Your task to perform on an android device: read, delete, or share a saved page in the chrome app Image 0: 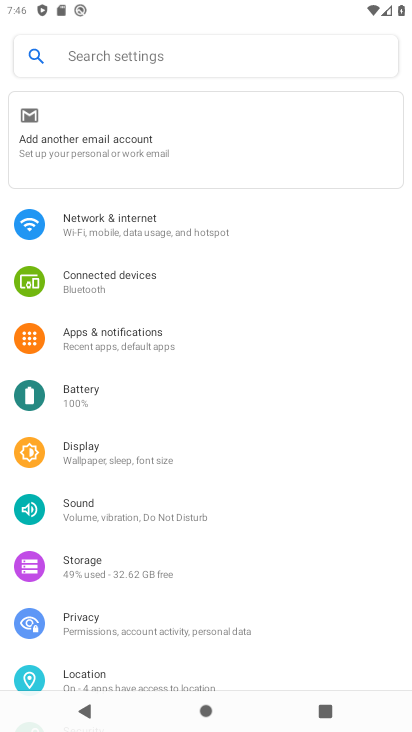
Step 0: press home button
Your task to perform on an android device: read, delete, or share a saved page in the chrome app Image 1: 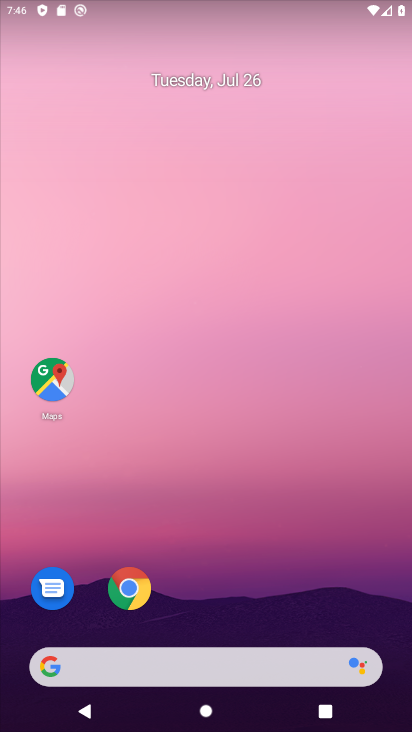
Step 1: drag from (176, 652) to (138, 394)
Your task to perform on an android device: read, delete, or share a saved page in the chrome app Image 2: 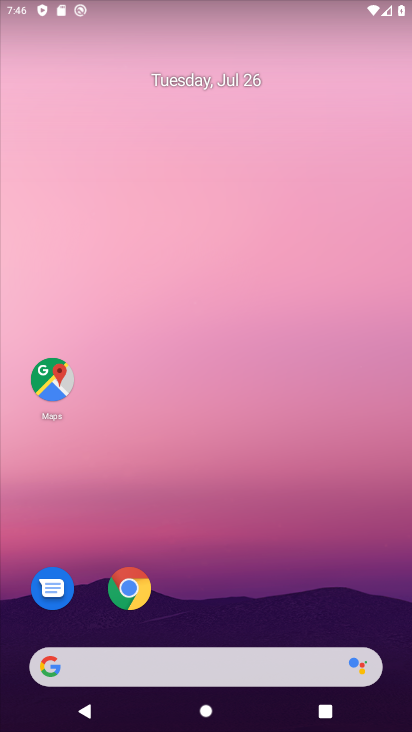
Step 2: drag from (167, 648) to (175, 101)
Your task to perform on an android device: read, delete, or share a saved page in the chrome app Image 3: 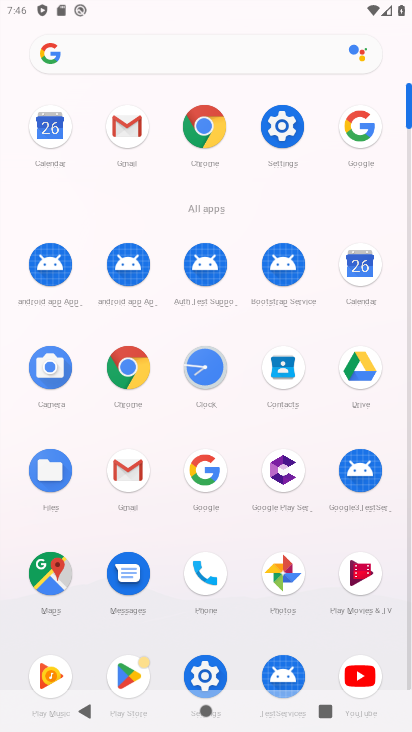
Step 3: click (131, 364)
Your task to perform on an android device: read, delete, or share a saved page in the chrome app Image 4: 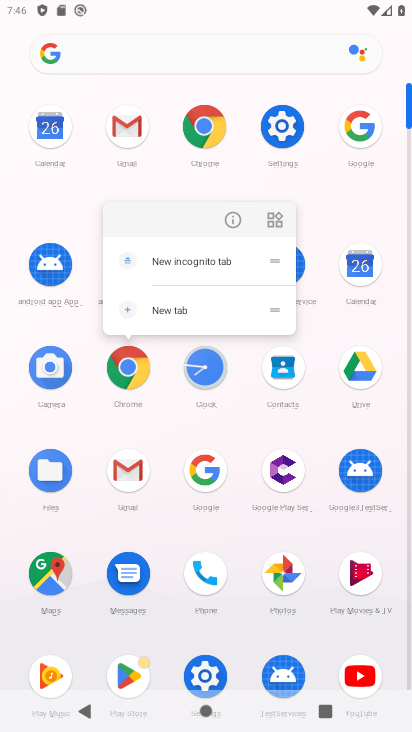
Step 4: click (131, 364)
Your task to perform on an android device: read, delete, or share a saved page in the chrome app Image 5: 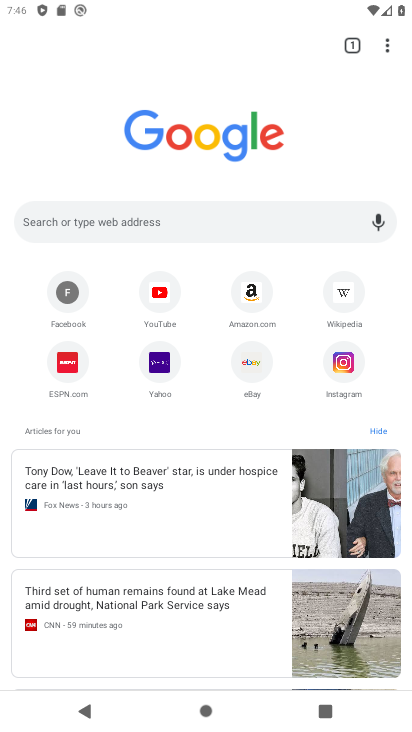
Step 5: click (386, 43)
Your task to perform on an android device: read, delete, or share a saved page in the chrome app Image 6: 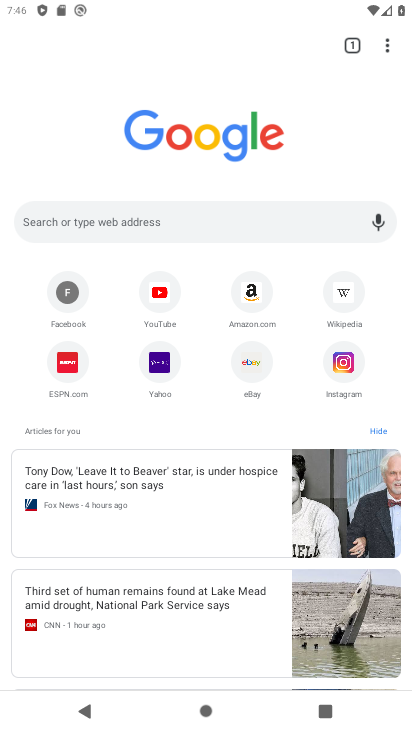
Step 6: click (386, 43)
Your task to perform on an android device: read, delete, or share a saved page in the chrome app Image 7: 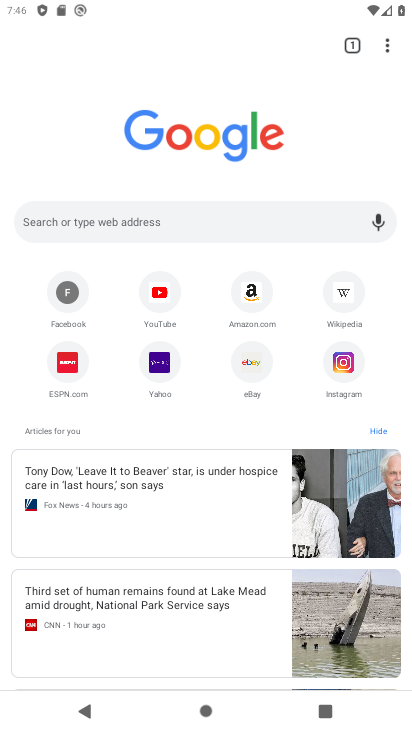
Step 7: click (386, 43)
Your task to perform on an android device: read, delete, or share a saved page in the chrome app Image 8: 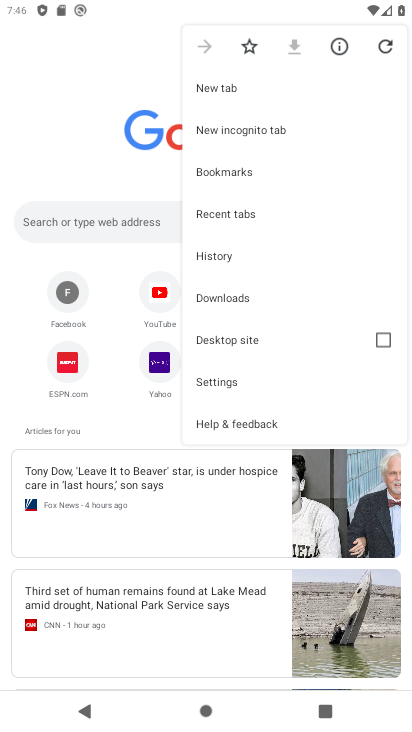
Step 8: click (209, 292)
Your task to perform on an android device: read, delete, or share a saved page in the chrome app Image 9: 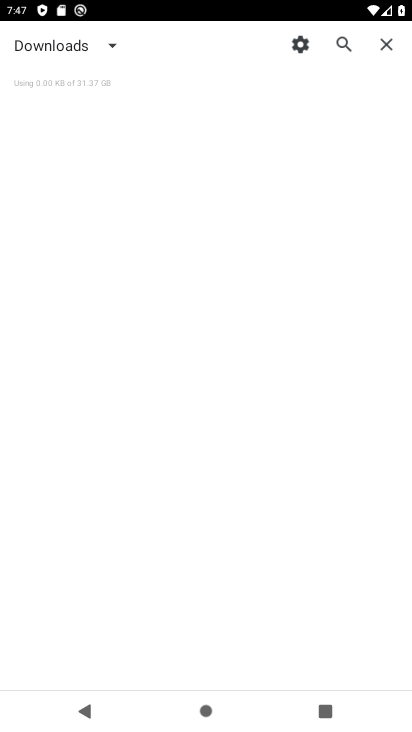
Step 9: click (118, 45)
Your task to perform on an android device: read, delete, or share a saved page in the chrome app Image 10: 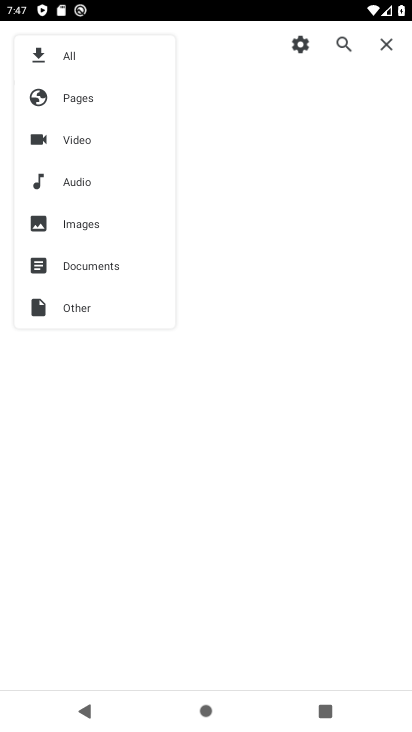
Step 10: click (91, 93)
Your task to perform on an android device: read, delete, or share a saved page in the chrome app Image 11: 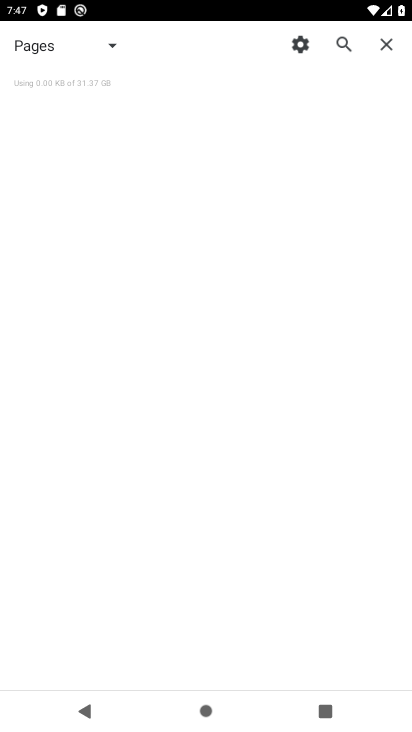
Step 11: task complete